Your task to perform on an android device: Open the calendar app, open the side menu, and click the "Day" option Image 0: 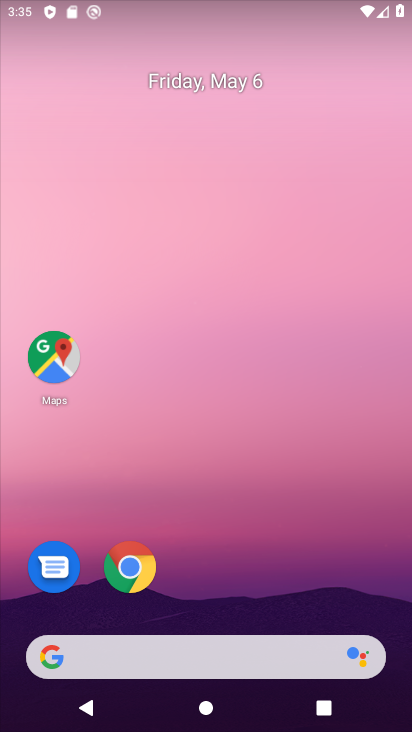
Step 0: drag from (207, 576) to (302, 0)
Your task to perform on an android device: Open the calendar app, open the side menu, and click the "Day" option Image 1: 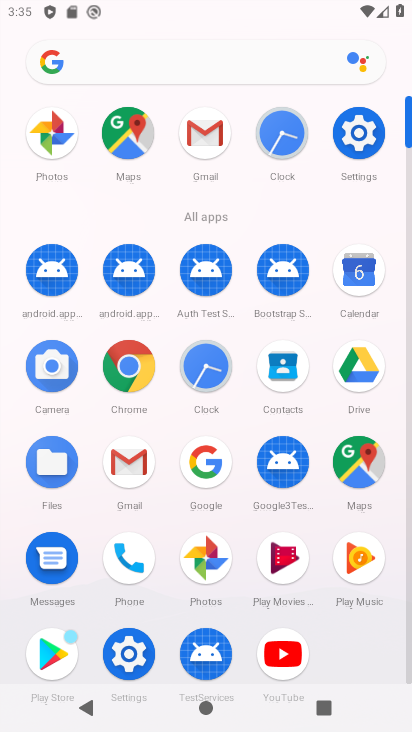
Step 1: click (367, 284)
Your task to perform on an android device: Open the calendar app, open the side menu, and click the "Day" option Image 2: 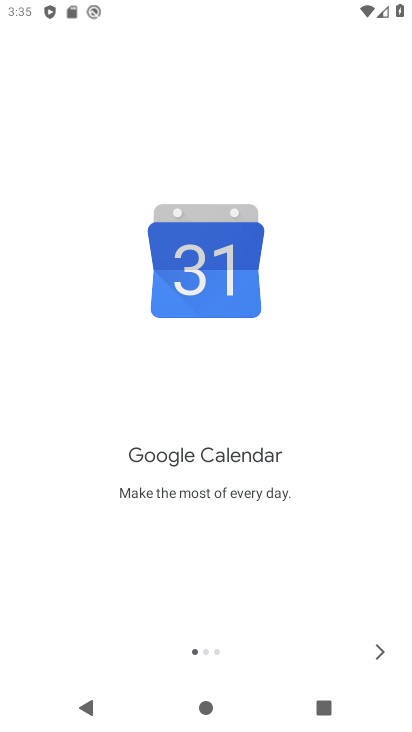
Step 2: click (385, 654)
Your task to perform on an android device: Open the calendar app, open the side menu, and click the "Day" option Image 3: 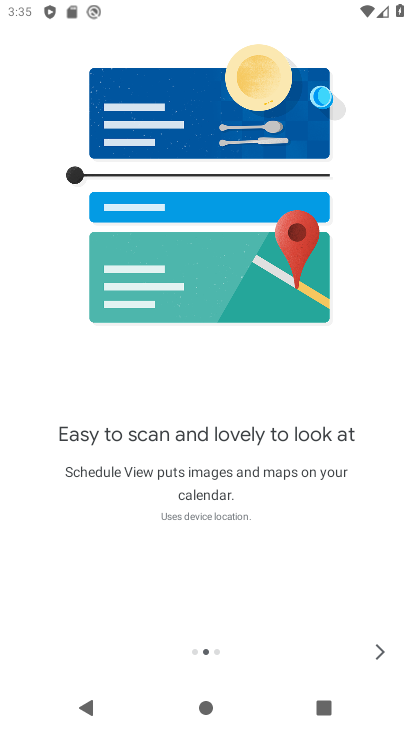
Step 3: click (381, 652)
Your task to perform on an android device: Open the calendar app, open the side menu, and click the "Day" option Image 4: 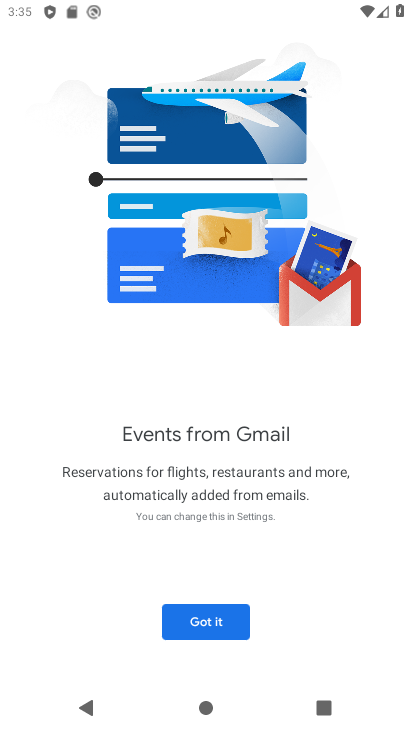
Step 4: click (192, 619)
Your task to perform on an android device: Open the calendar app, open the side menu, and click the "Day" option Image 5: 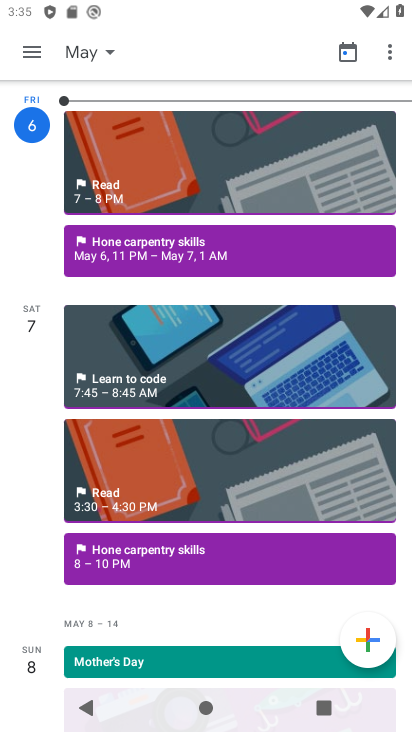
Step 5: click (27, 58)
Your task to perform on an android device: Open the calendar app, open the side menu, and click the "Day" option Image 6: 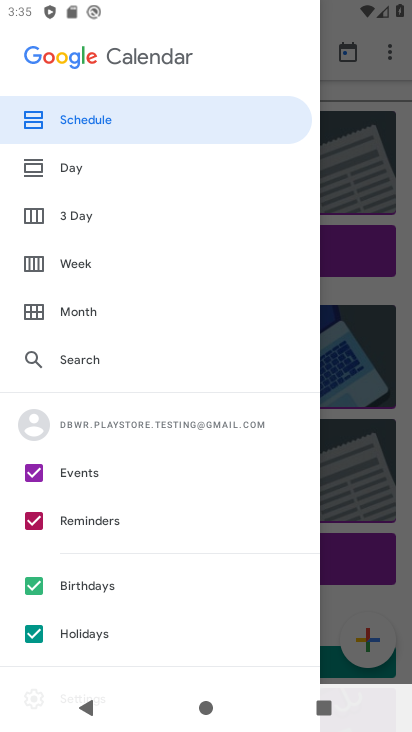
Step 6: click (79, 167)
Your task to perform on an android device: Open the calendar app, open the side menu, and click the "Day" option Image 7: 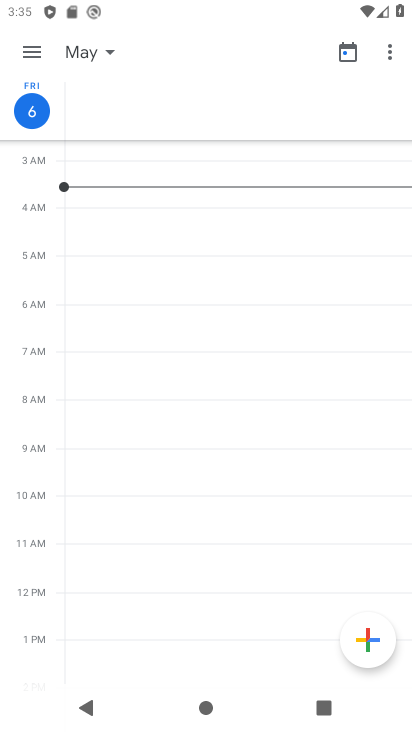
Step 7: task complete